Your task to perform on an android device: Is it going to rain this weekend? Image 0: 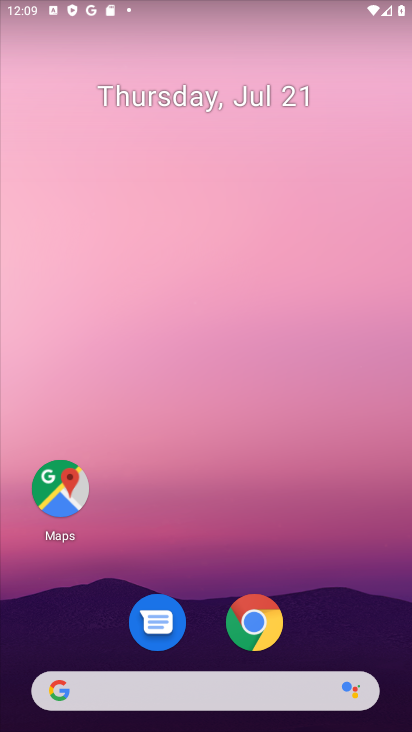
Step 0: click (201, 693)
Your task to perform on an android device: Is it going to rain this weekend? Image 1: 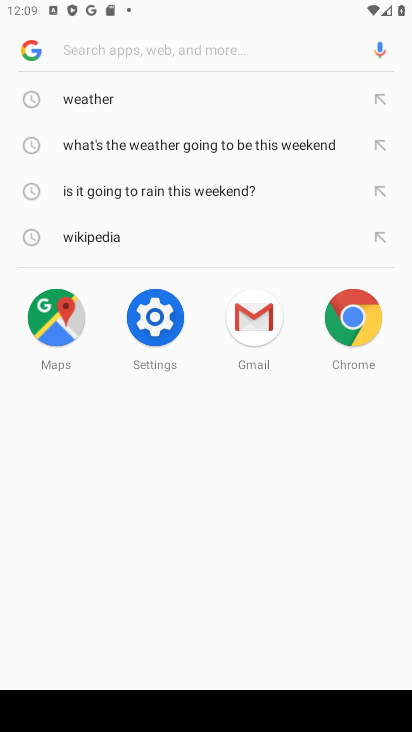
Step 1: click (160, 47)
Your task to perform on an android device: Is it going to rain this weekend? Image 2: 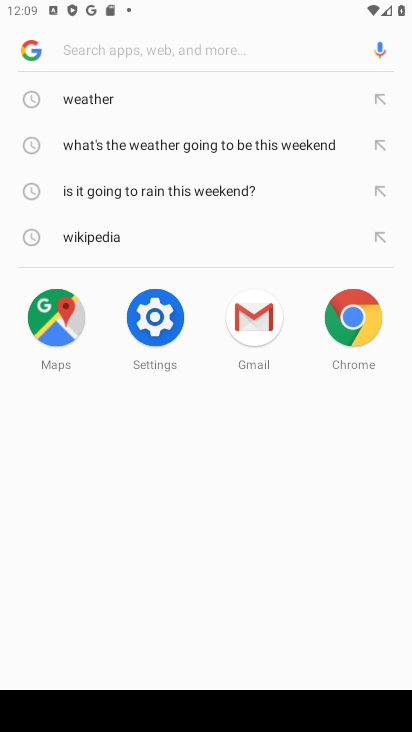
Step 2: drag from (380, 694) to (384, 629)
Your task to perform on an android device: Is it going to rain this weekend? Image 3: 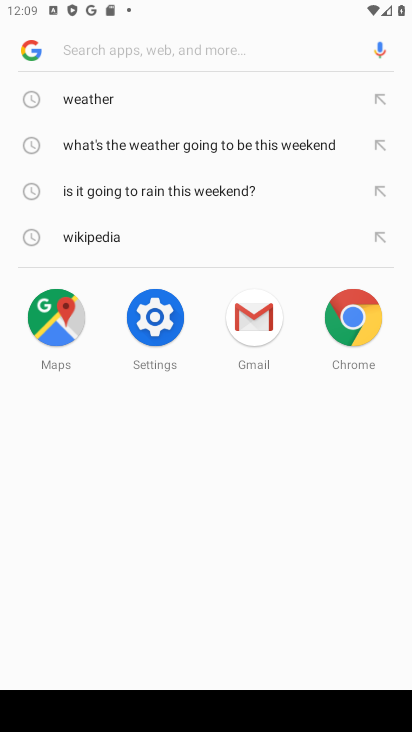
Step 3: drag from (365, 719) to (335, 647)
Your task to perform on an android device: Is it going to rain this weekend? Image 4: 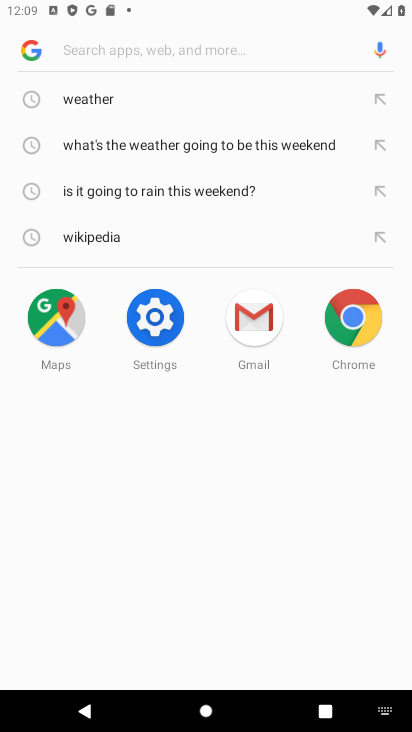
Step 4: click (395, 713)
Your task to perform on an android device: Is it going to rain this weekend? Image 5: 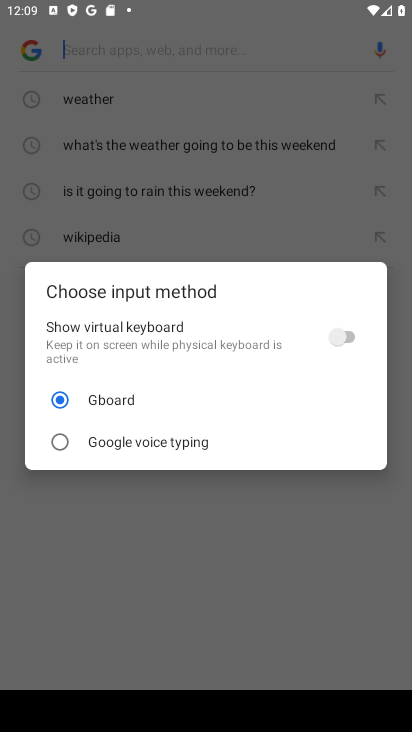
Step 5: click (336, 335)
Your task to perform on an android device: Is it going to rain this weekend? Image 6: 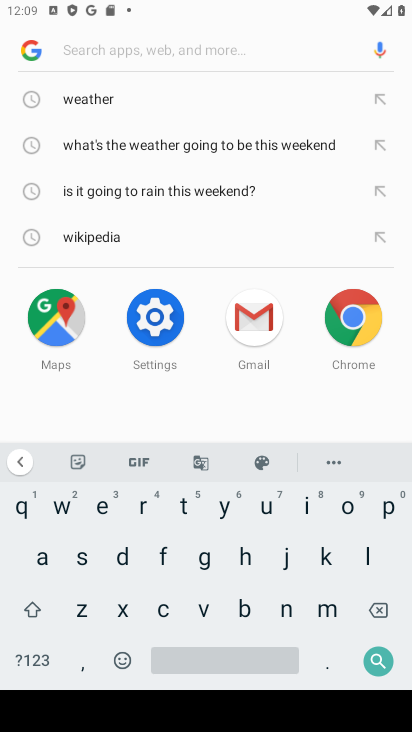
Step 6: click (306, 508)
Your task to perform on an android device: Is it going to rain this weekend? Image 7: 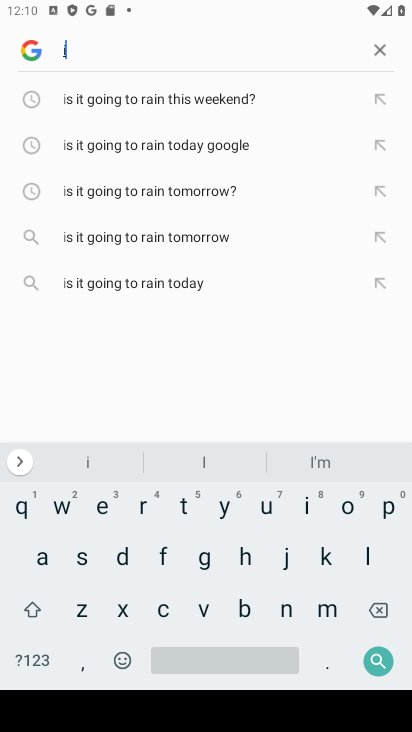
Step 7: click (217, 99)
Your task to perform on an android device: Is it going to rain this weekend? Image 8: 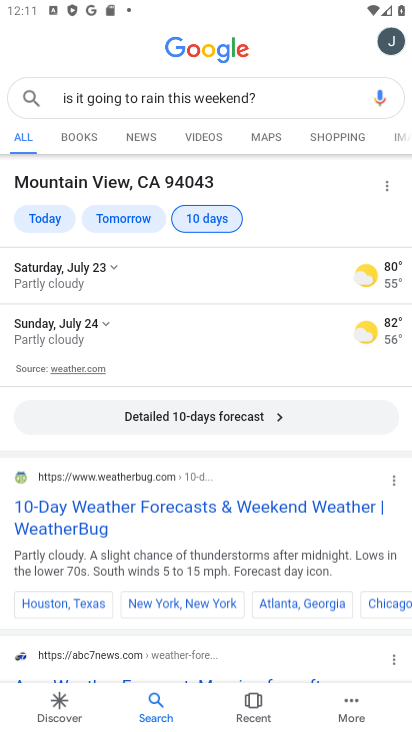
Step 8: task complete